Your task to perform on an android device: manage bookmarks in the chrome app Image 0: 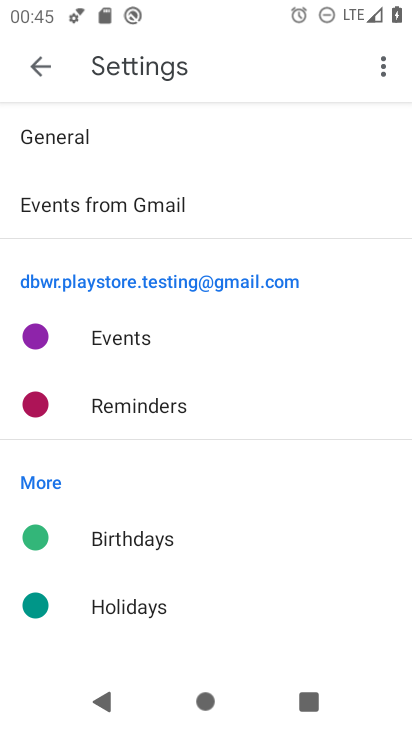
Step 0: press home button
Your task to perform on an android device: manage bookmarks in the chrome app Image 1: 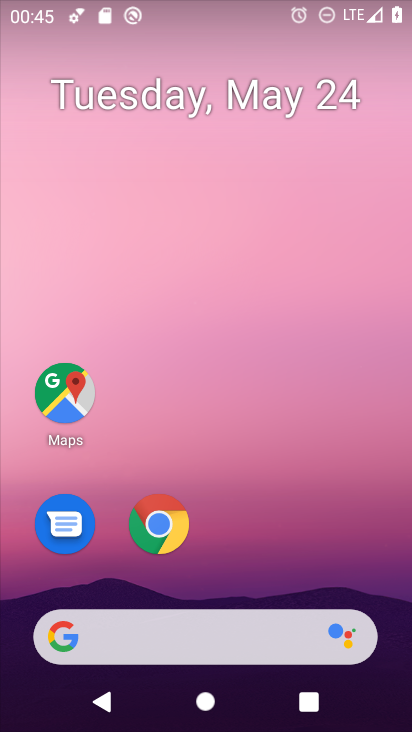
Step 1: click (174, 505)
Your task to perform on an android device: manage bookmarks in the chrome app Image 2: 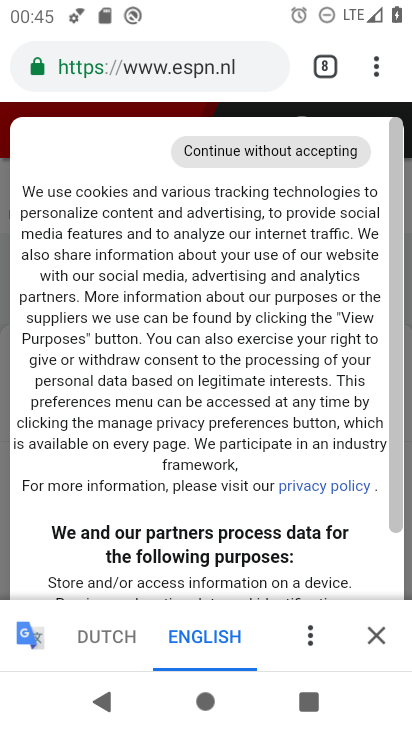
Step 2: drag from (365, 73) to (210, 348)
Your task to perform on an android device: manage bookmarks in the chrome app Image 3: 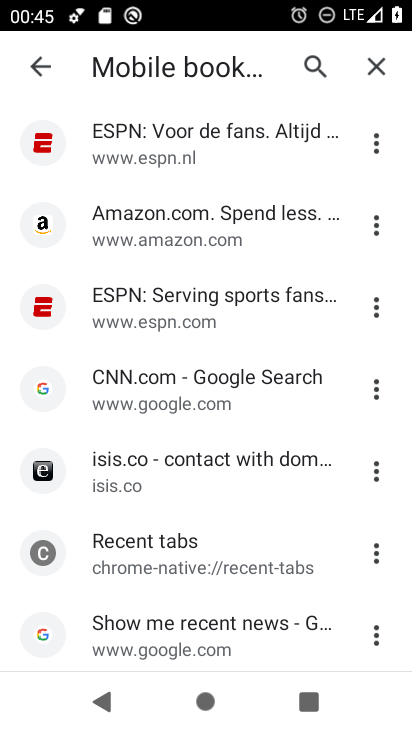
Step 3: click (373, 466)
Your task to perform on an android device: manage bookmarks in the chrome app Image 4: 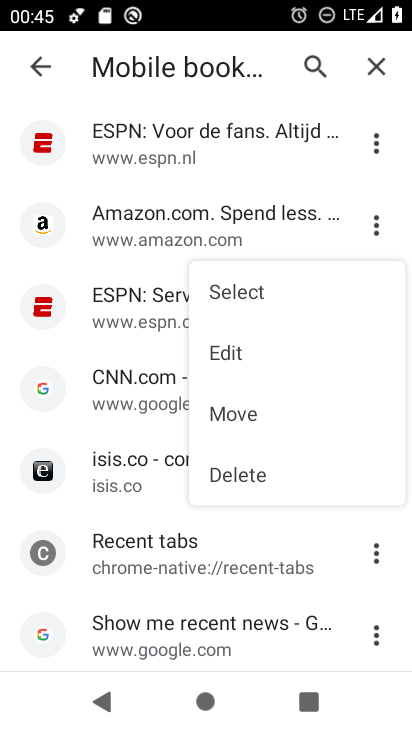
Step 4: click (247, 476)
Your task to perform on an android device: manage bookmarks in the chrome app Image 5: 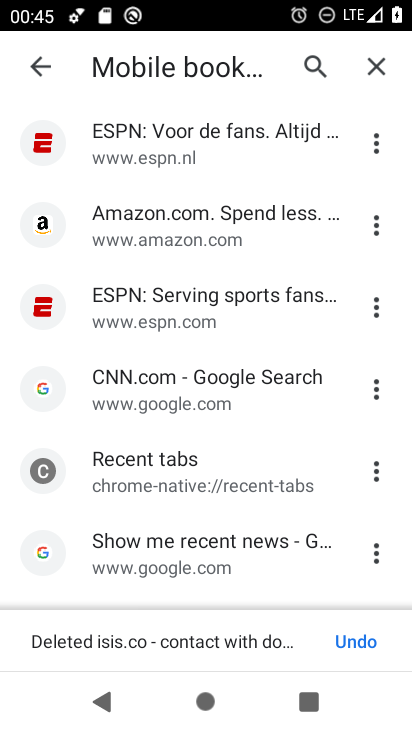
Step 5: task complete